Your task to perform on an android device: Check the weather Image 0: 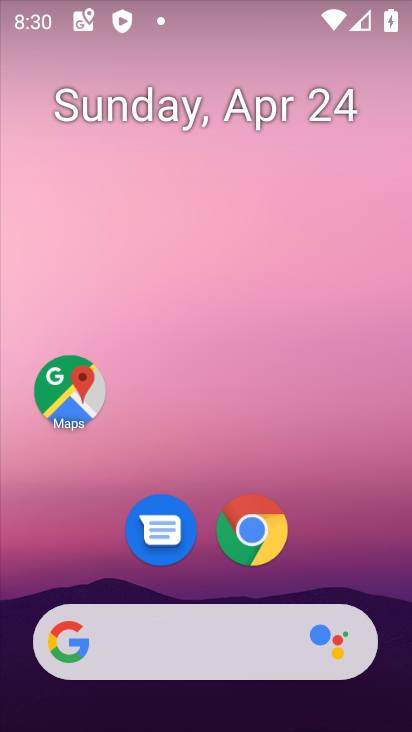
Step 0: click (191, 643)
Your task to perform on an android device: Check the weather Image 1: 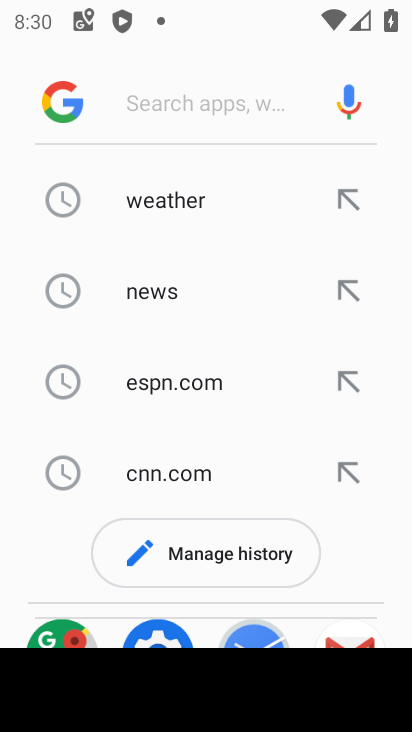
Step 1: click (148, 223)
Your task to perform on an android device: Check the weather Image 2: 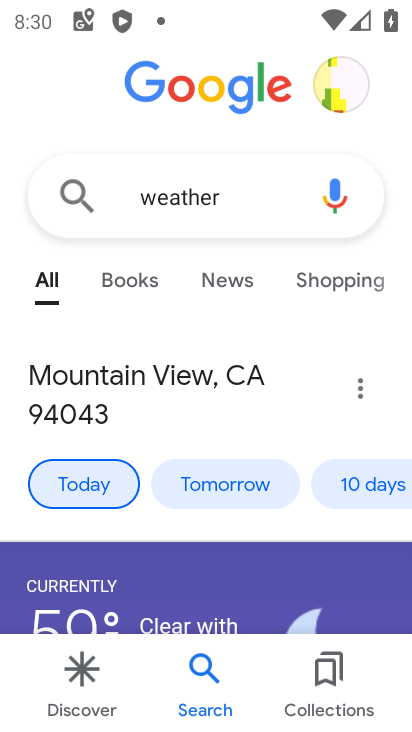
Step 2: task complete